Your task to perform on an android device: Turn off the flashlight Image 0: 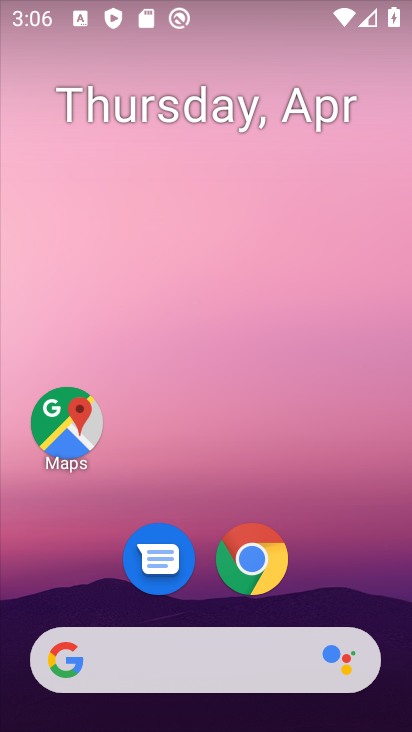
Step 0: drag from (261, 1) to (208, 430)
Your task to perform on an android device: Turn off the flashlight Image 1: 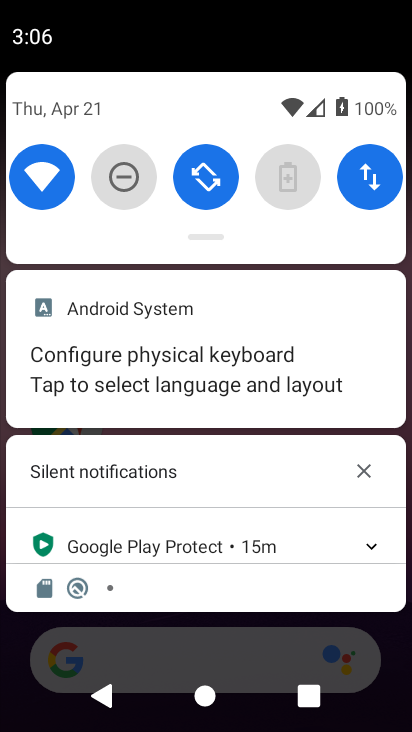
Step 1: task complete